Your task to perform on an android device: add a contact in the contacts app Image 0: 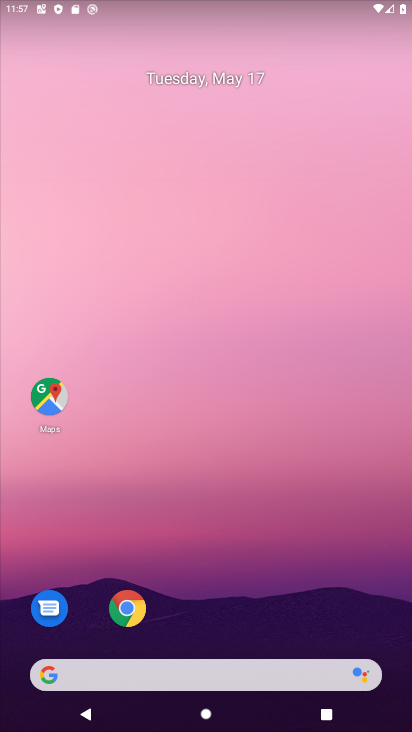
Step 0: drag from (271, 713) to (233, 268)
Your task to perform on an android device: add a contact in the contacts app Image 1: 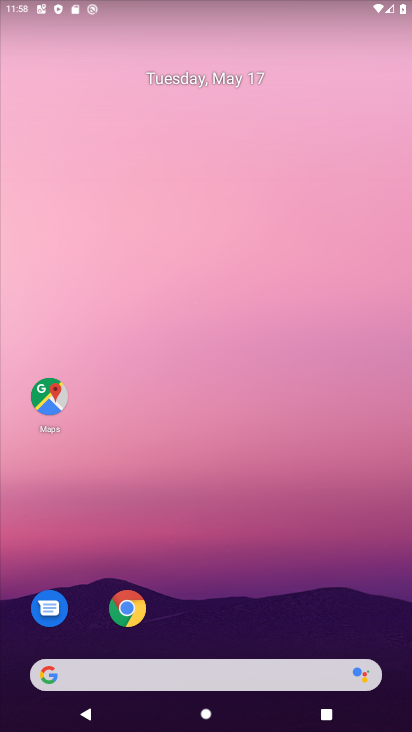
Step 1: drag from (247, 555) to (255, 152)
Your task to perform on an android device: add a contact in the contacts app Image 2: 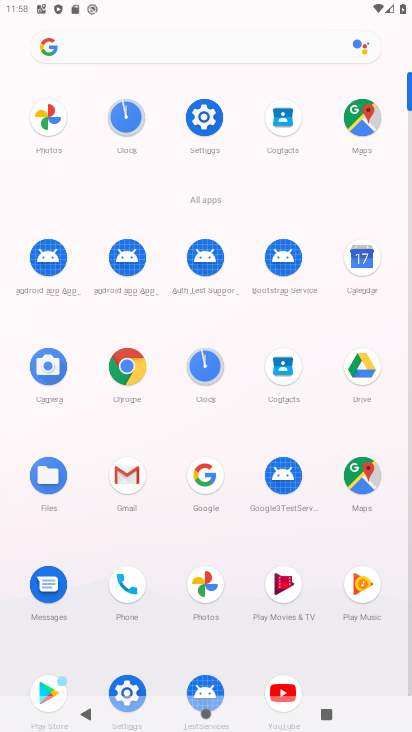
Step 2: click (269, 116)
Your task to perform on an android device: add a contact in the contacts app Image 3: 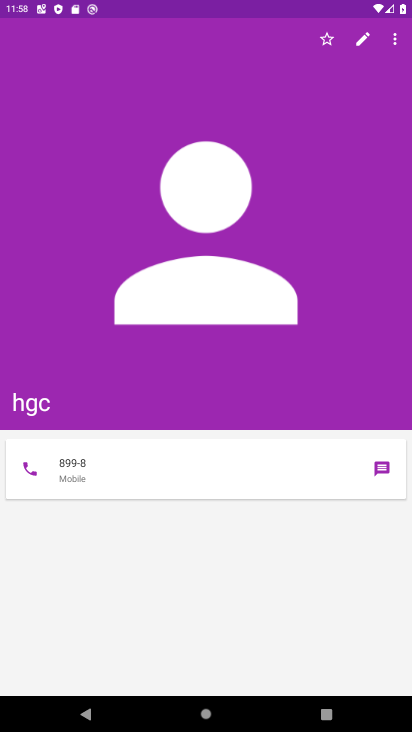
Step 3: press back button
Your task to perform on an android device: add a contact in the contacts app Image 4: 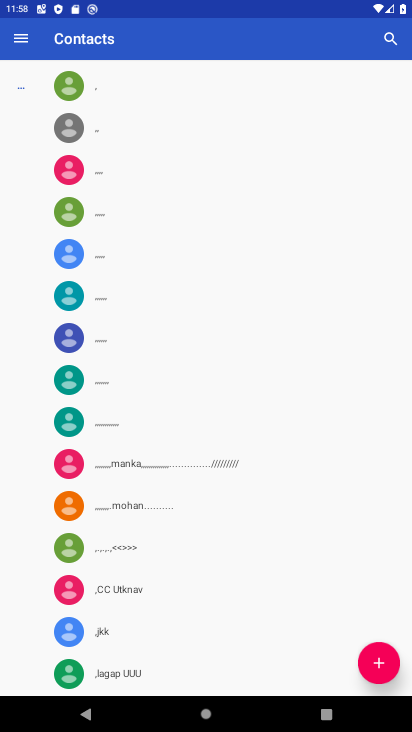
Step 4: click (370, 671)
Your task to perform on an android device: add a contact in the contacts app Image 5: 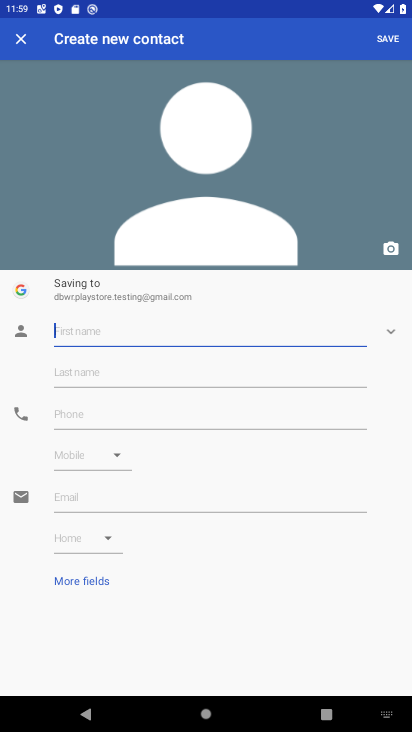
Step 5: type "hvjh"
Your task to perform on an android device: add a contact in the contacts app Image 6: 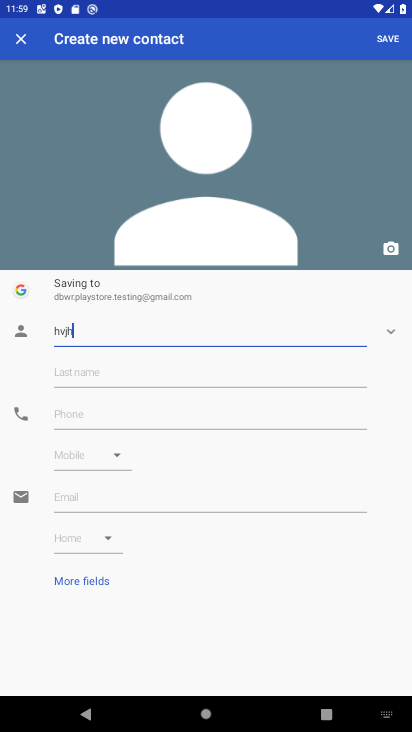
Step 6: click (187, 408)
Your task to perform on an android device: add a contact in the contacts app Image 7: 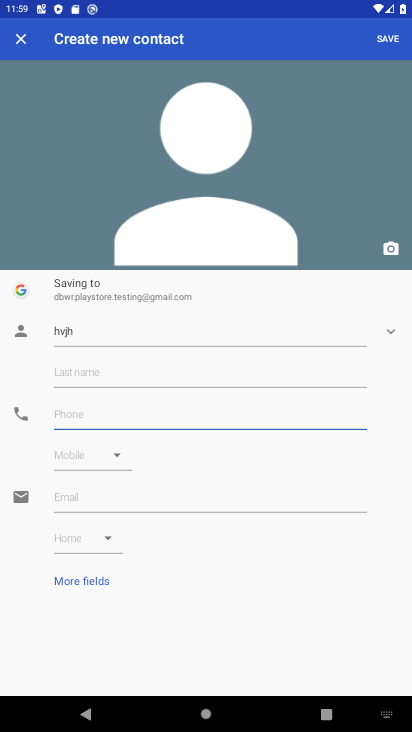
Step 7: type "67"
Your task to perform on an android device: add a contact in the contacts app Image 8: 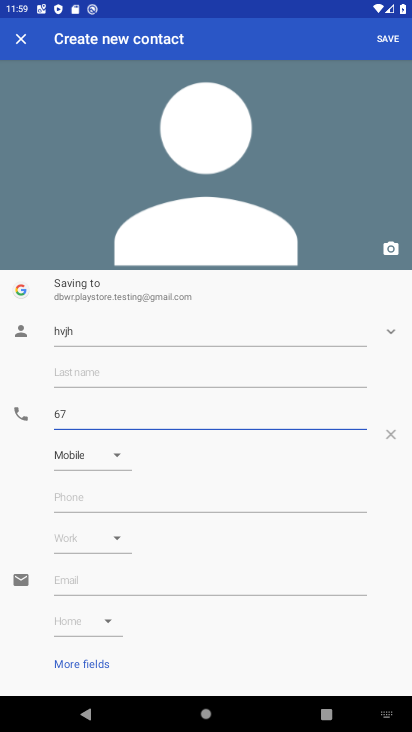
Step 8: click (396, 39)
Your task to perform on an android device: add a contact in the contacts app Image 9: 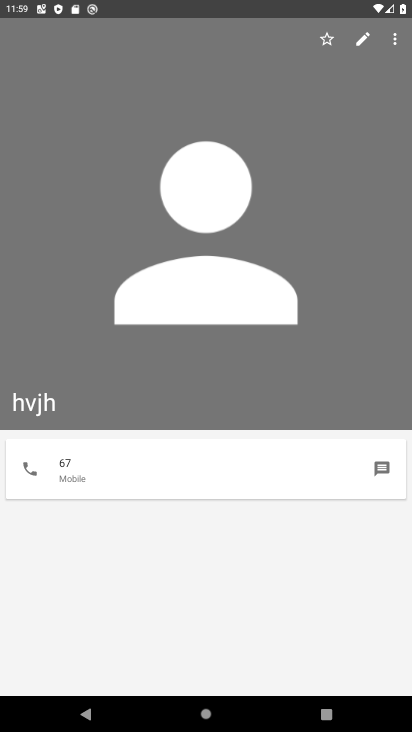
Step 9: task complete